Your task to perform on an android device: Open the phone app and click the voicemail tab. Image 0: 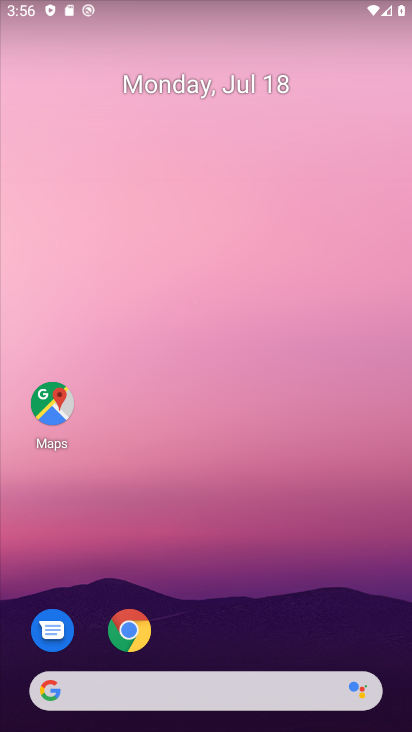
Step 0: drag from (351, 607) to (241, 115)
Your task to perform on an android device: Open the phone app and click the voicemail tab. Image 1: 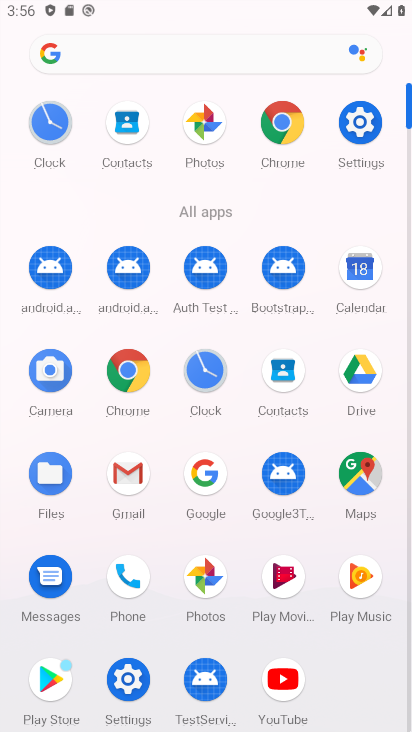
Step 1: click (124, 578)
Your task to perform on an android device: Open the phone app and click the voicemail tab. Image 2: 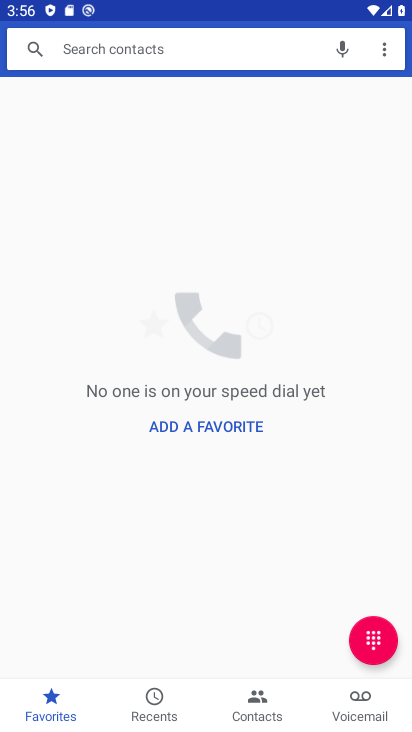
Step 2: click (357, 699)
Your task to perform on an android device: Open the phone app and click the voicemail tab. Image 3: 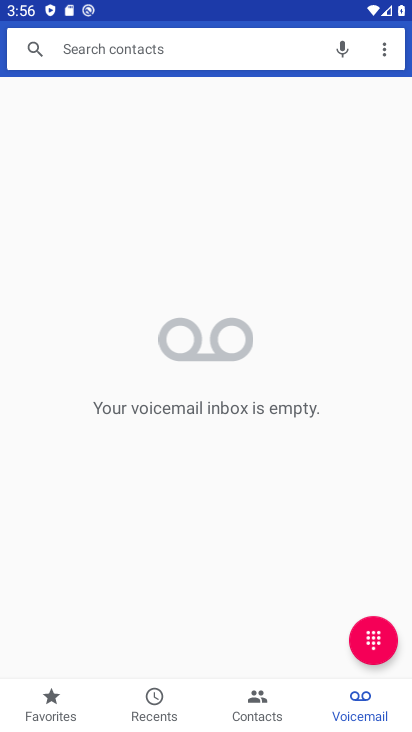
Step 3: task complete